Your task to perform on an android device: change the clock display to analog Image 0: 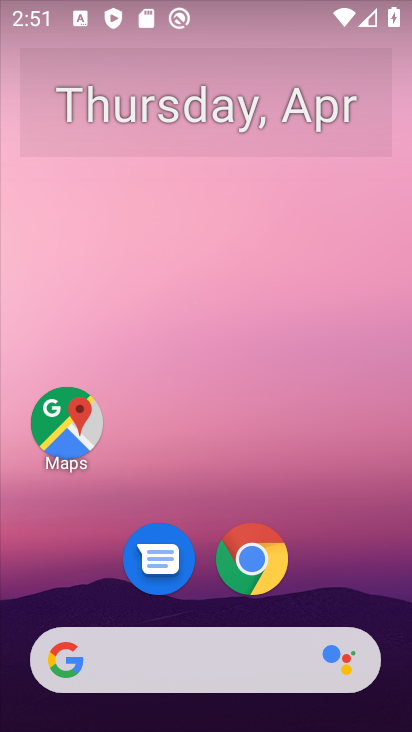
Step 0: drag from (288, 580) to (327, 128)
Your task to perform on an android device: change the clock display to analog Image 1: 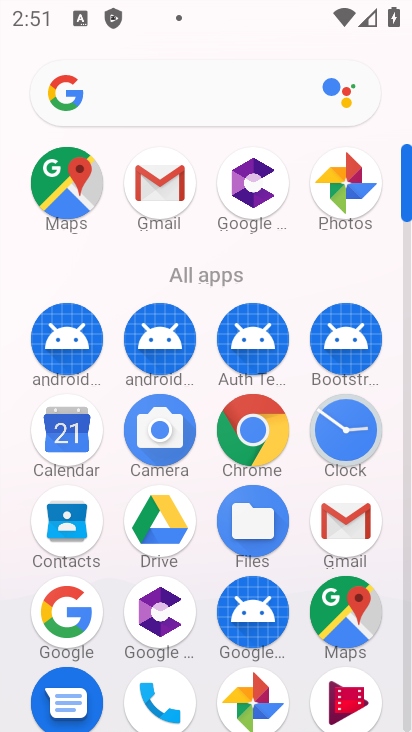
Step 1: click (349, 440)
Your task to perform on an android device: change the clock display to analog Image 2: 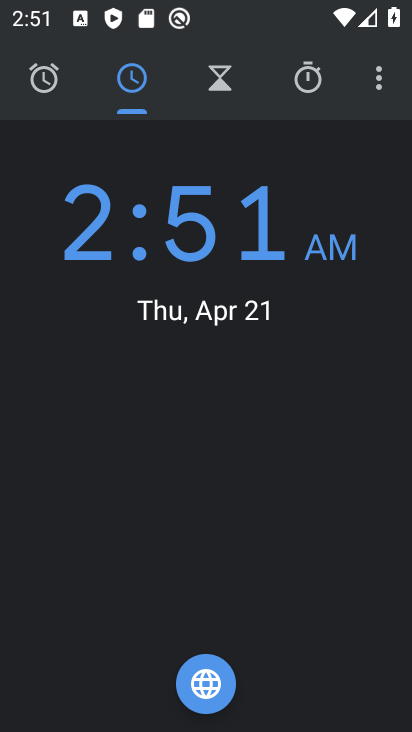
Step 2: click (376, 86)
Your task to perform on an android device: change the clock display to analog Image 3: 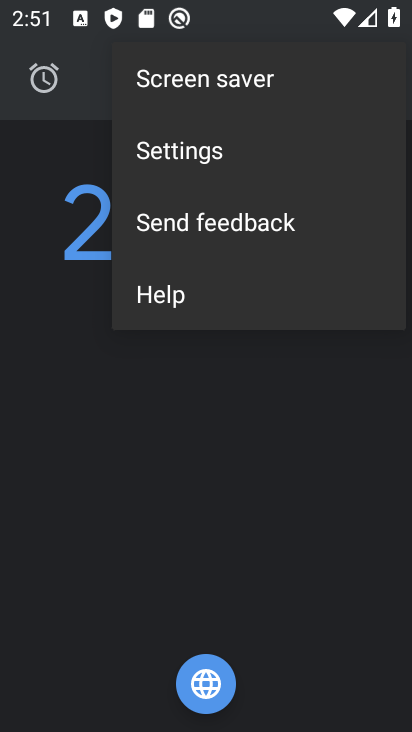
Step 3: click (229, 160)
Your task to perform on an android device: change the clock display to analog Image 4: 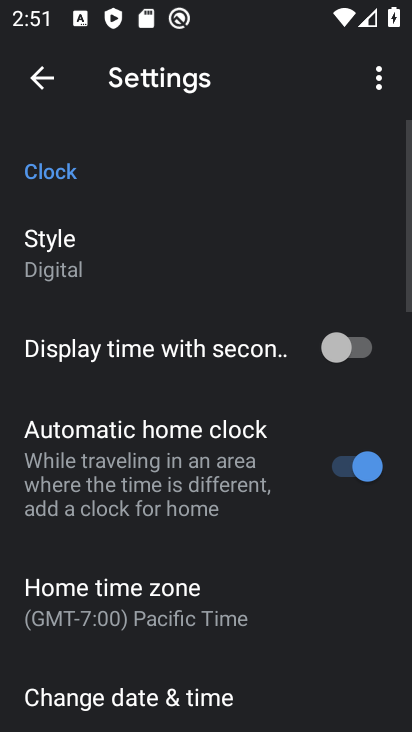
Step 4: click (201, 268)
Your task to perform on an android device: change the clock display to analog Image 5: 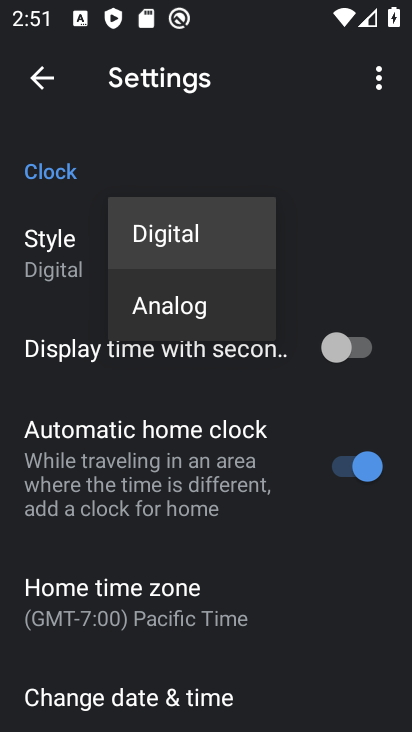
Step 5: click (222, 230)
Your task to perform on an android device: change the clock display to analog Image 6: 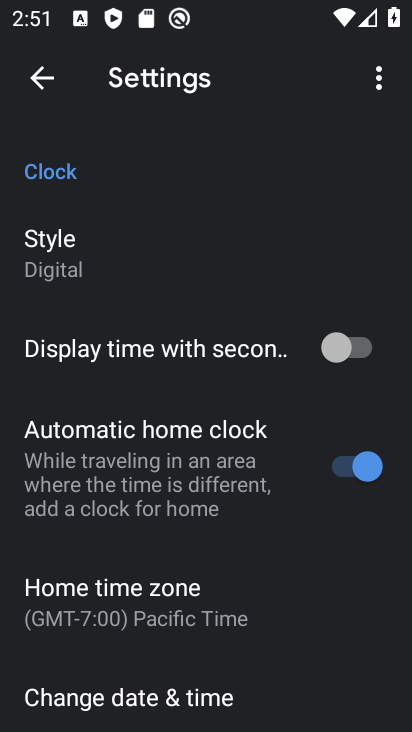
Step 6: click (36, 265)
Your task to perform on an android device: change the clock display to analog Image 7: 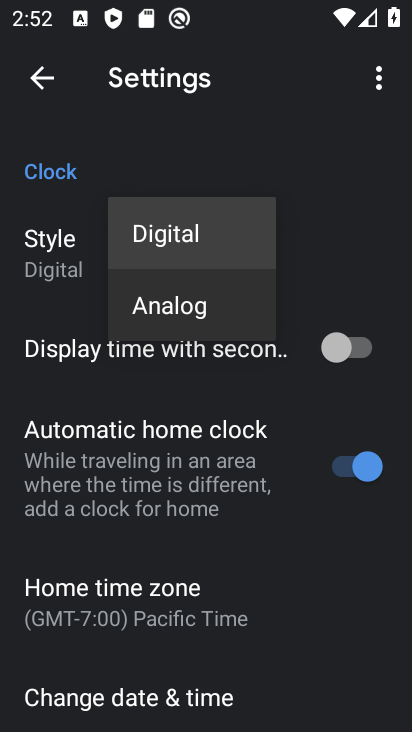
Step 7: click (147, 301)
Your task to perform on an android device: change the clock display to analog Image 8: 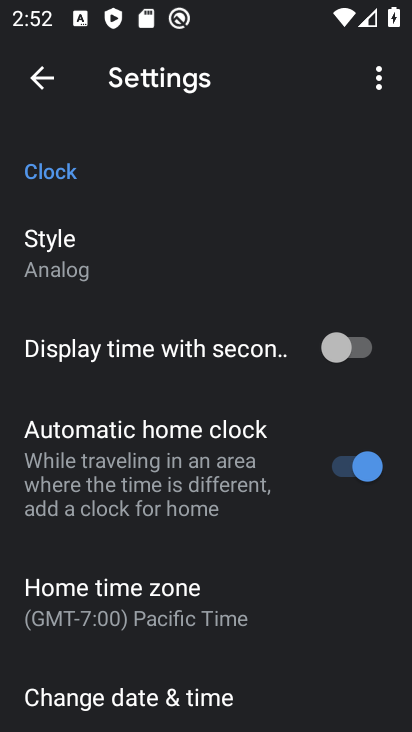
Step 8: task complete